Your task to perform on an android device: Open Google Chrome and open the bookmarks view Image 0: 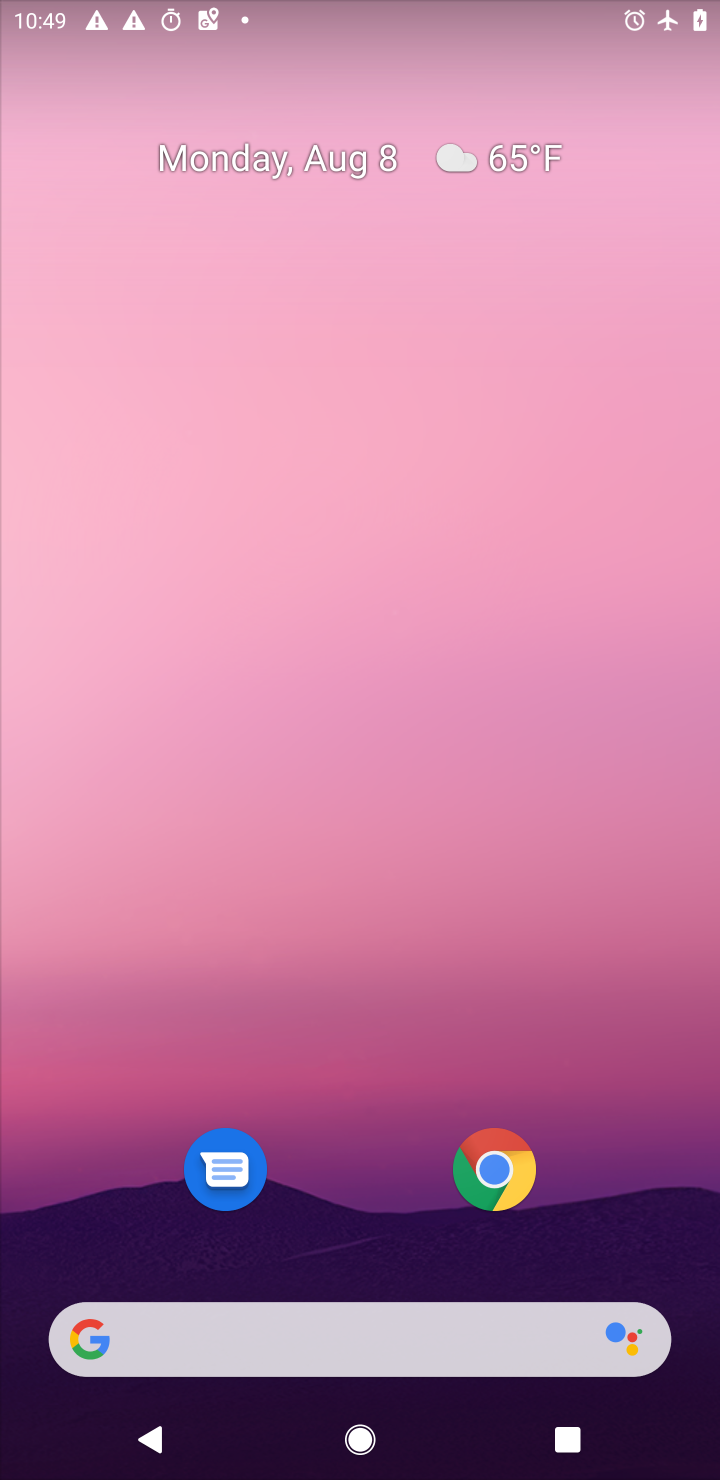
Step 0: click (507, 1184)
Your task to perform on an android device: Open Google Chrome and open the bookmarks view Image 1: 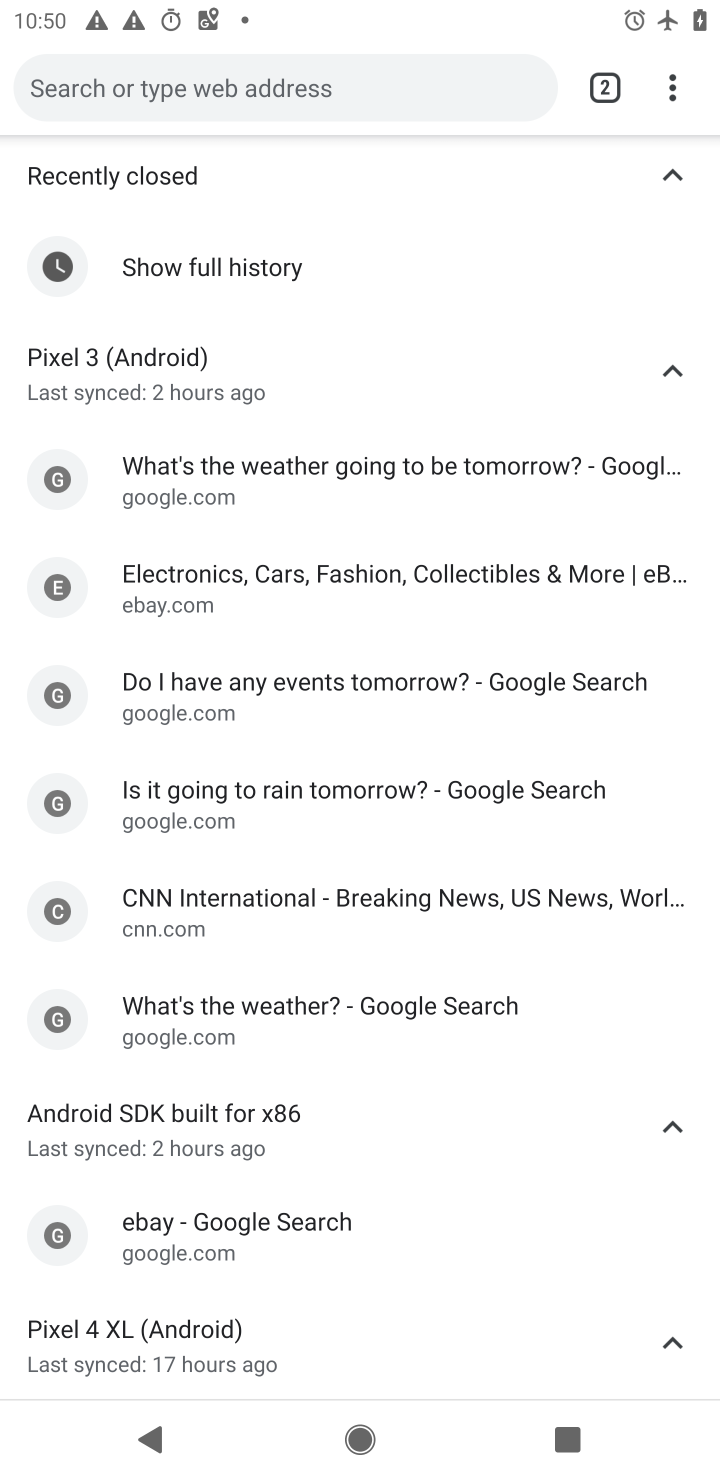
Step 1: task complete